Your task to perform on an android device: Clear all items from cart on bestbuy. Image 0: 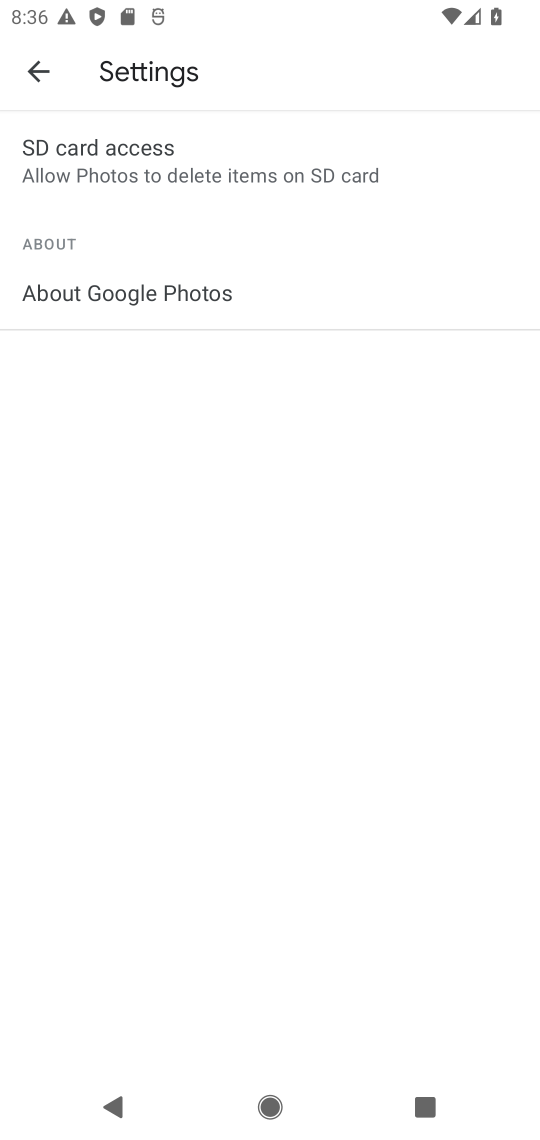
Step 0: press home button
Your task to perform on an android device: Clear all items from cart on bestbuy. Image 1: 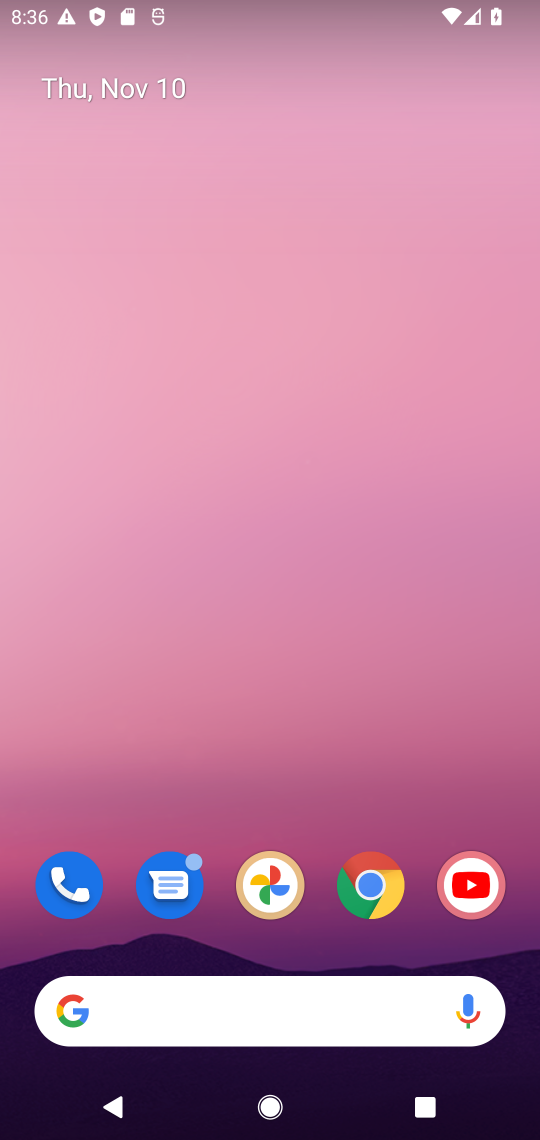
Step 1: click (365, 876)
Your task to perform on an android device: Clear all items from cart on bestbuy. Image 2: 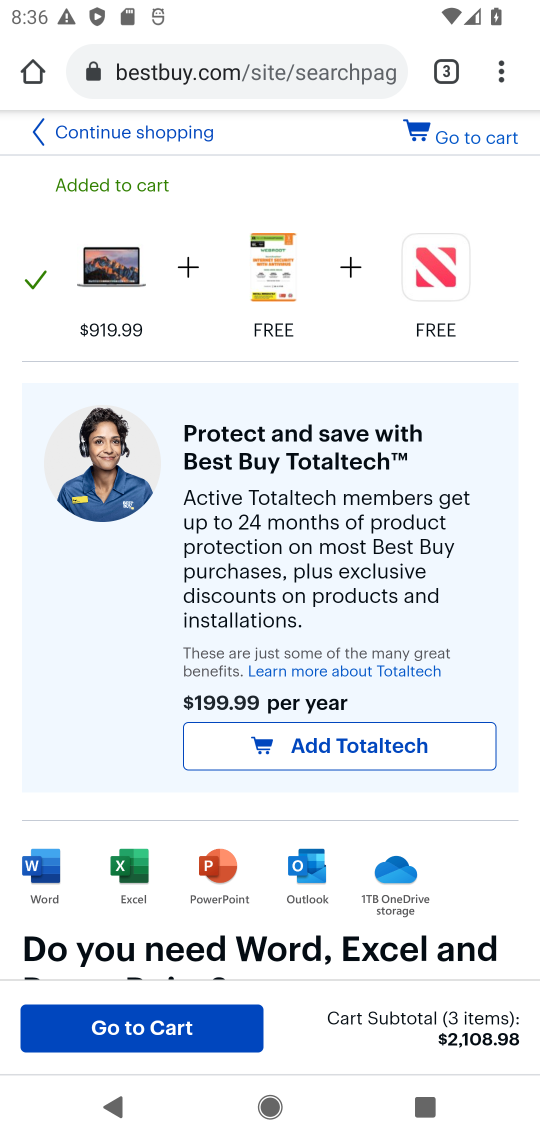
Step 2: click (478, 138)
Your task to perform on an android device: Clear all items from cart on bestbuy. Image 3: 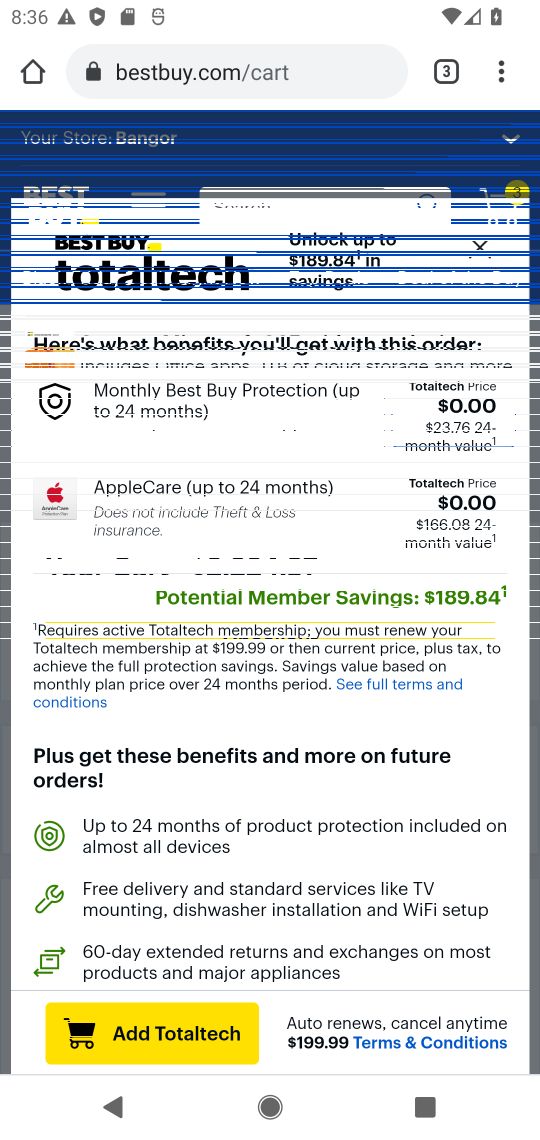
Step 3: click (483, 248)
Your task to perform on an android device: Clear all items from cart on bestbuy. Image 4: 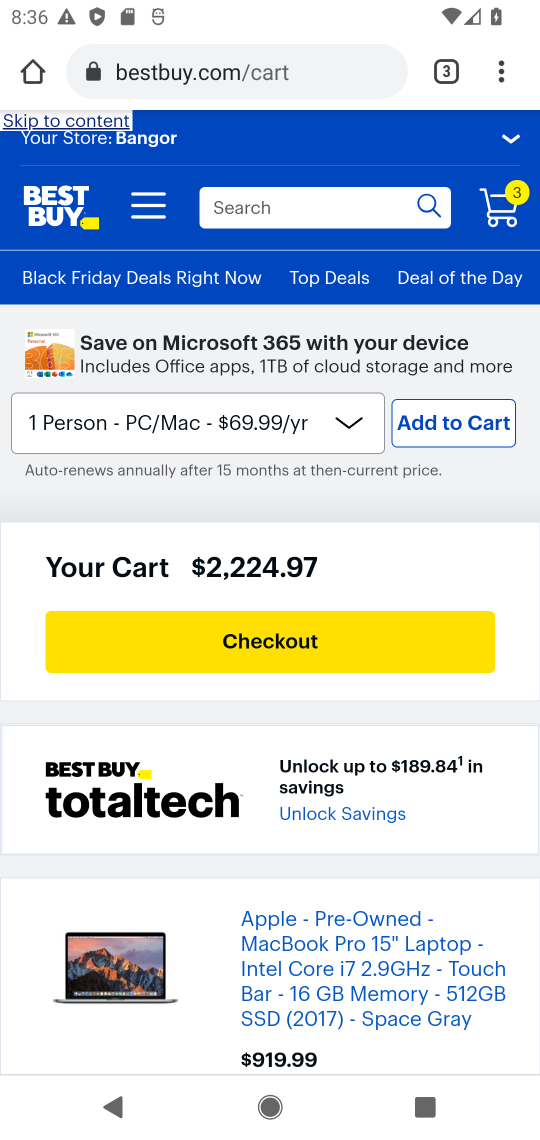
Step 4: drag from (400, 850) to (436, 18)
Your task to perform on an android device: Clear all items from cart on bestbuy. Image 5: 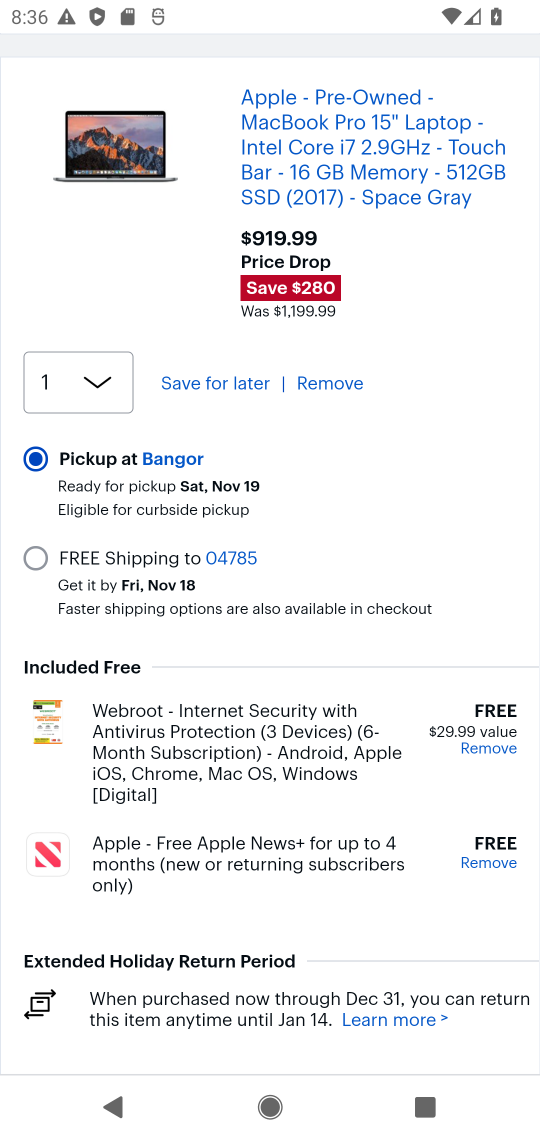
Step 5: drag from (351, 595) to (489, 32)
Your task to perform on an android device: Clear all items from cart on bestbuy. Image 6: 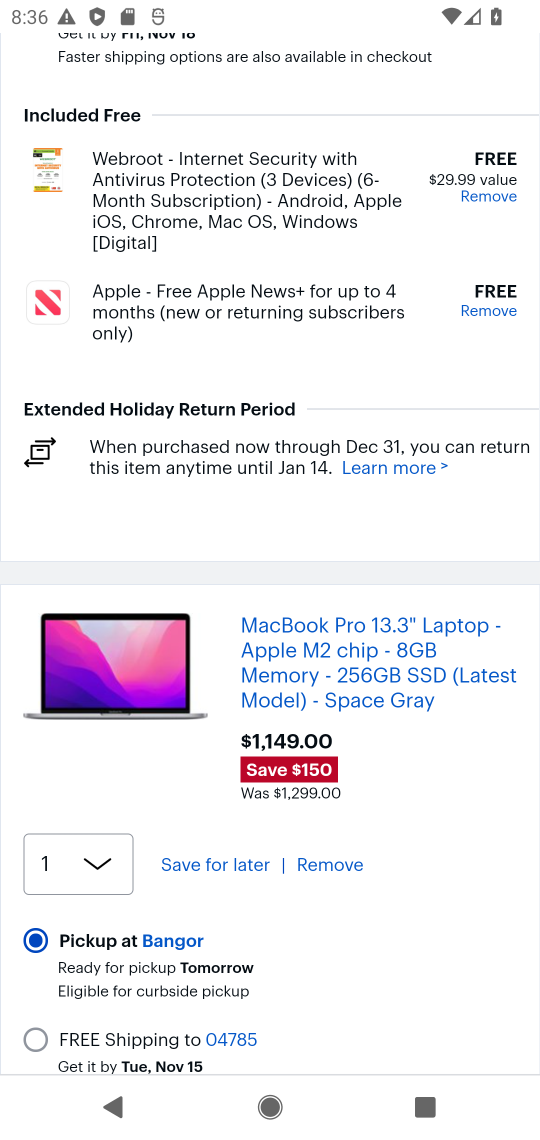
Step 6: click (322, 854)
Your task to perform on an android device: Clear all items from cart on bestbuy. Image 7: 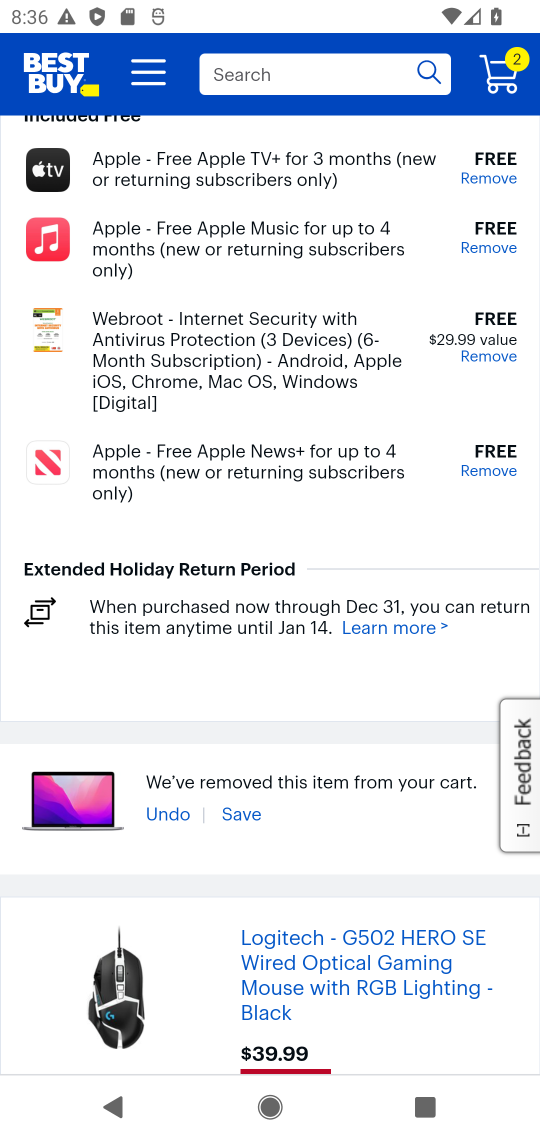
Step 7: drag from (289, 738) to (425, 291)
Your task to perform on an android device: Clear all items from cart on bestbuy. Image 8: 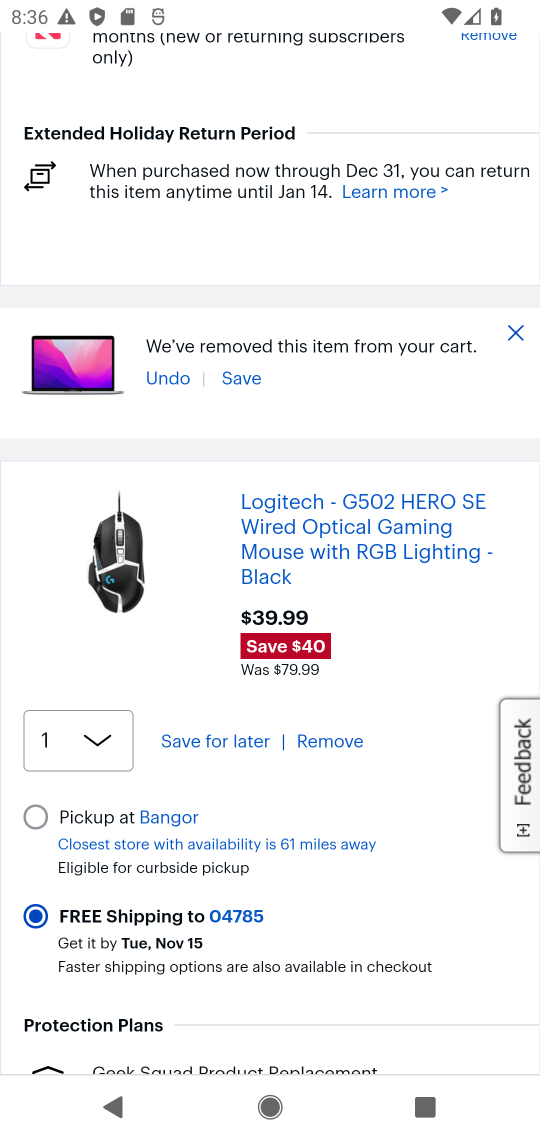
Step 8: click (322, 738)
Your task to perform on an android device: Clear all items from cart on bestbuy. Image 9: 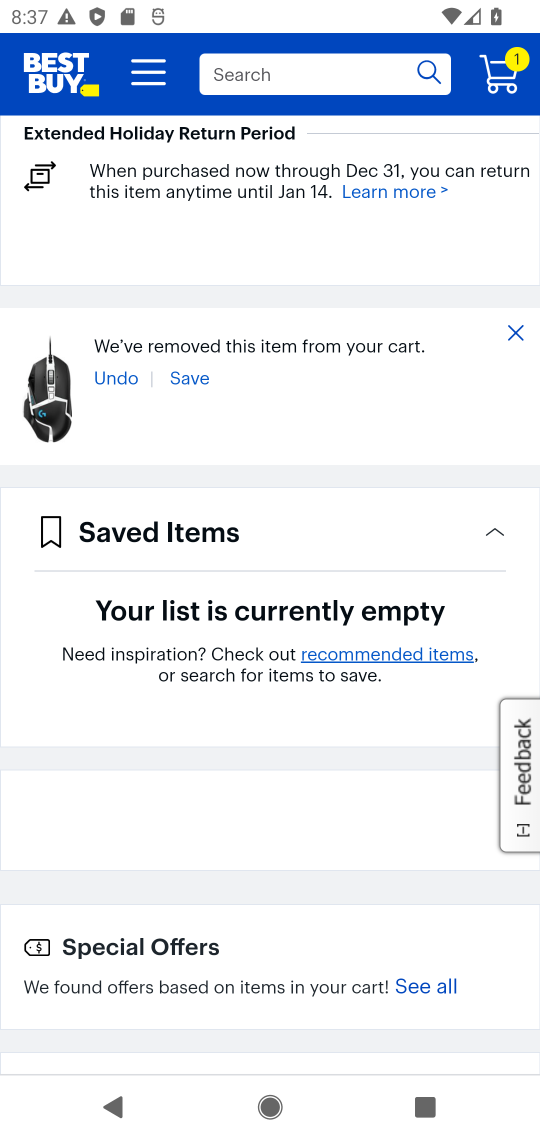
Step 9: task complete